Your task to perform on an android device: Open Google Chrome Image 0: 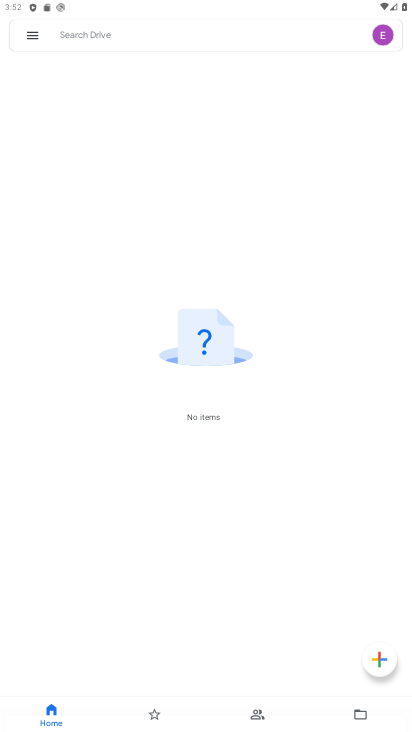
Step 0: press home button
Your task to perform on an android device: Open Google Chrome Image 1: 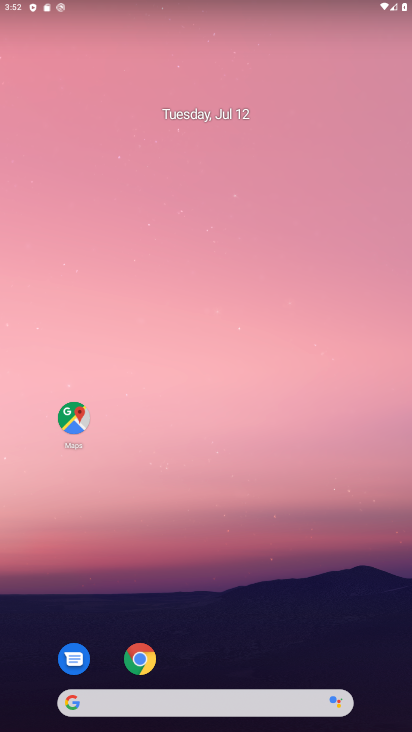
Step 1: drag from (230, 554) to (317, 122)
Your task to perform on an android device: Open Google Chrome Image 2: 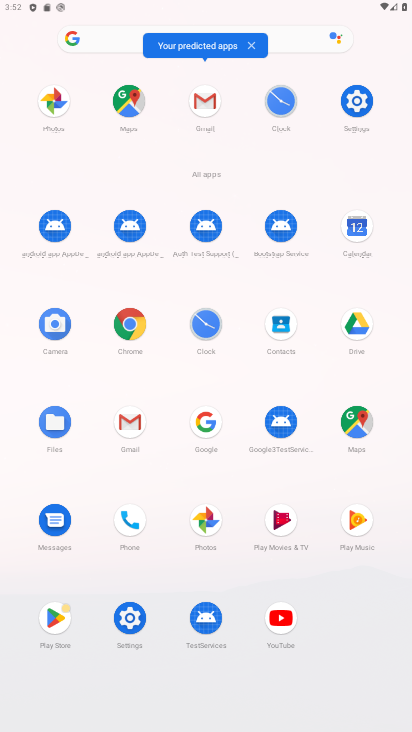
Step 2: click (131, 331)
Your task to perform on an android device: Open Google Chrome Image 3: 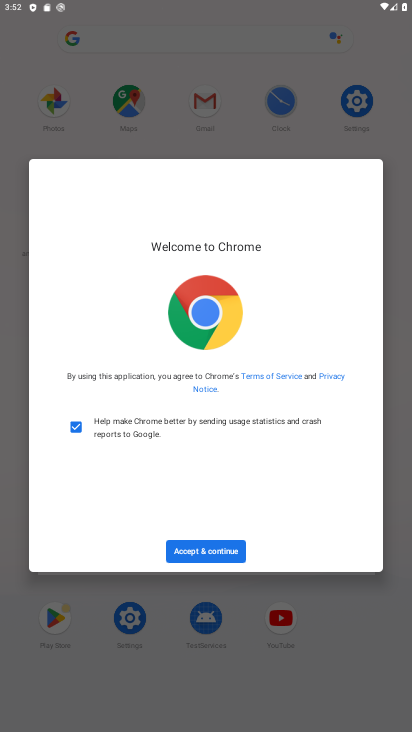
Step 3: click (195, 565)
Your task to perform on an android device: Open Google Chrome Image 4: 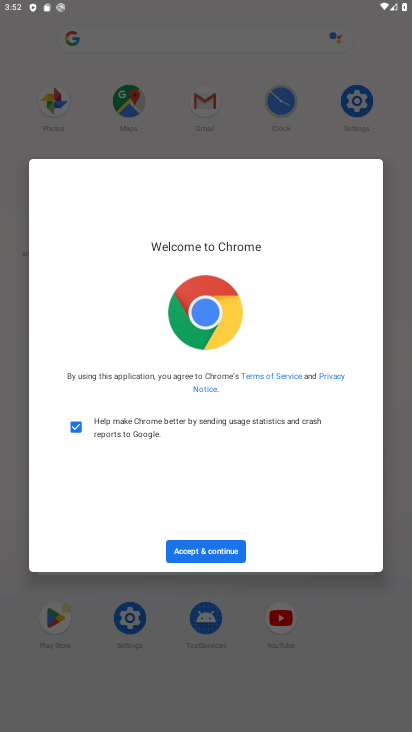
Step 4: click (219, 554)
Your task to perform on an android device: Open Google Chrome Image 5: 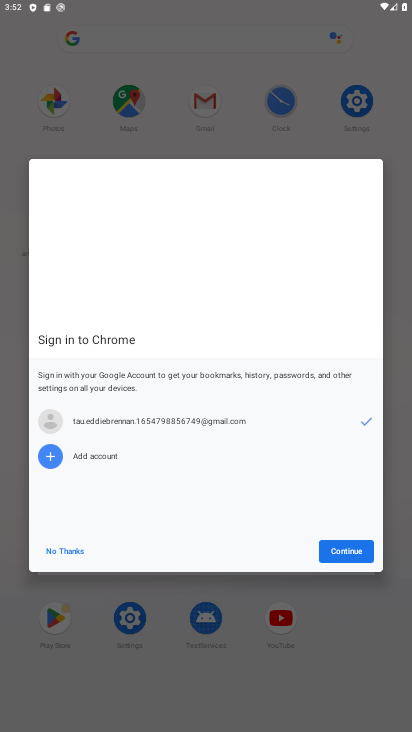
Step 5: click (340, 552)
Your task to perform on an android device: Open Google Chrome Image 6: 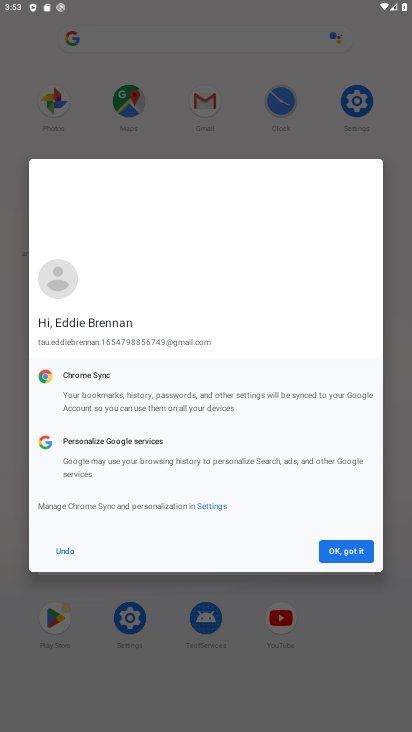
Step 6: click (353, 558)
Your task to perform on an android device: Open Google Chrome Image 7: 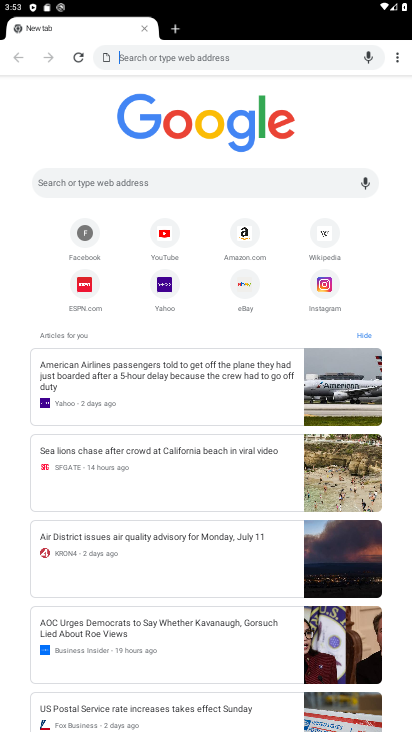
Step 7: task complete